Your task to perform on an android device: Do I have any events today? Image 0: 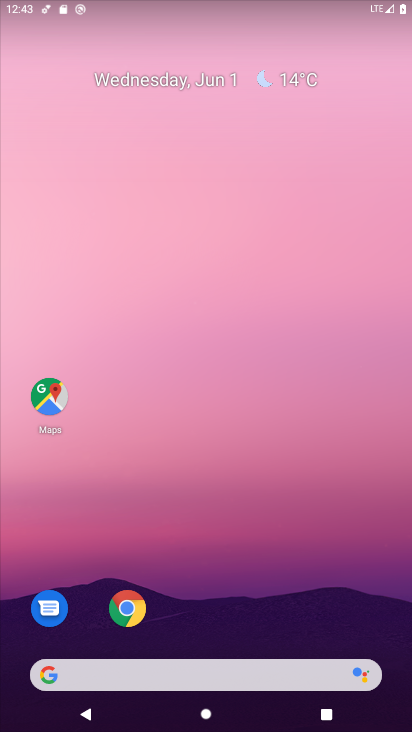
Step 0: drag from (205, 627) to (313, 37)
Your task to perform on an android device: Do I have any events today? Image 1: 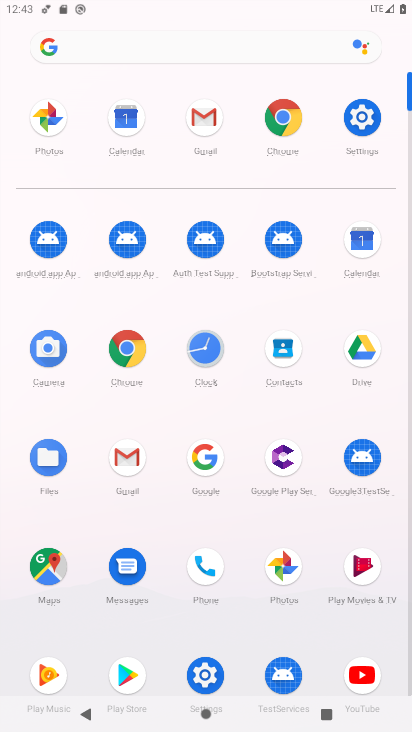
Step 1: click (361, 252)
Your task to perform on an android device: Do I have any events today? Image 2: 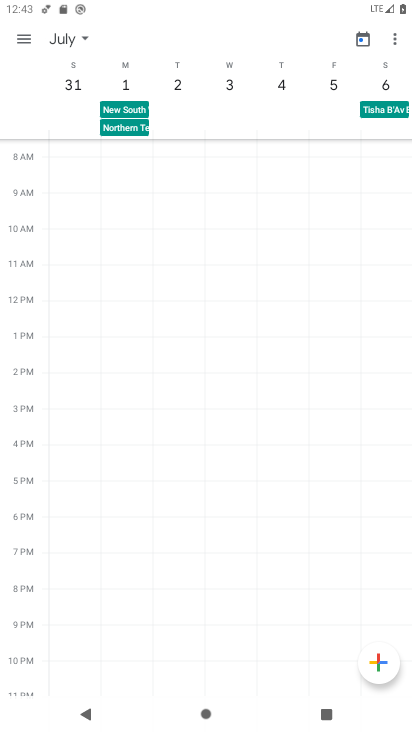
Step 2: click (72, 36)
Your task to perform on an android device: Do I have any events today? Image 3: 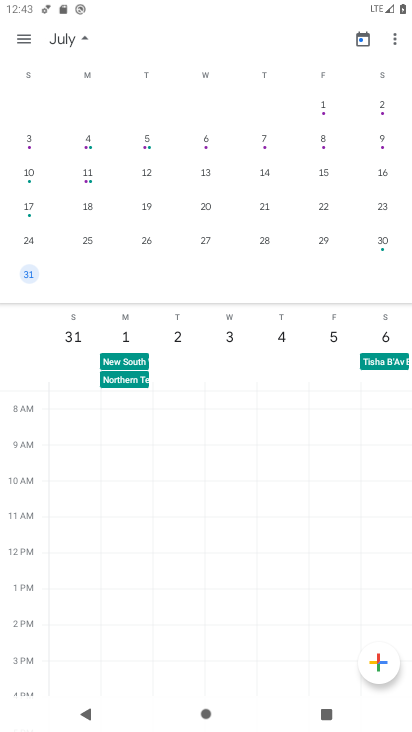
Step 3: drag from (55, 142) to (399, 135)
Your task to perform on an android device: Do I have any events today? Image 4: 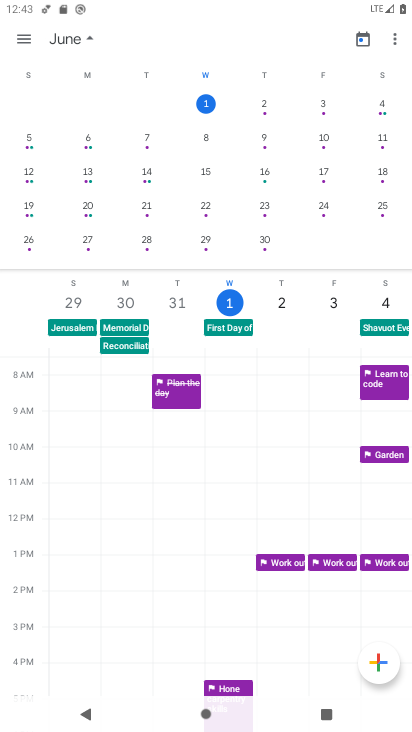
Step 4: click (210, 95)
Your task to perform on an android device: Do I have any events today? Image 5: 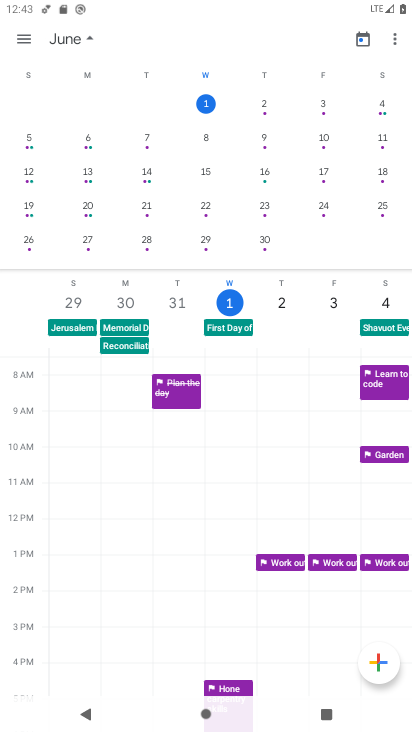
Step 5: click (23, 42)
Your task to perform on an android device: Do I have any events today? Image 6: 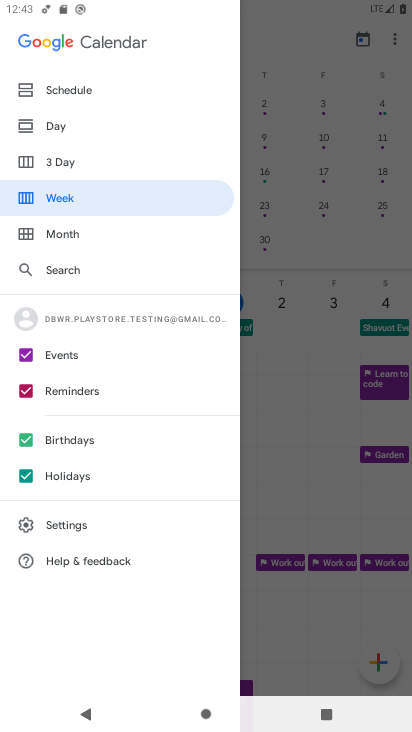
Step 6: click (67, 443)
Your task to perform on an android device: Do I have any events today? Image 7: 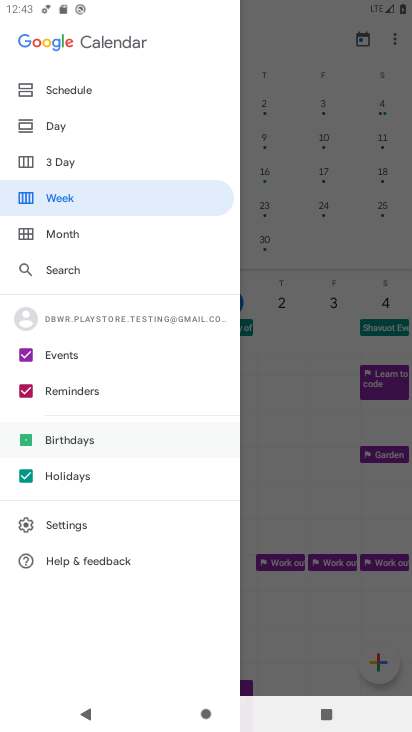
Step 7: click (62, 477)
Your task to perform on an android device: Do I have any events today? Image 8: 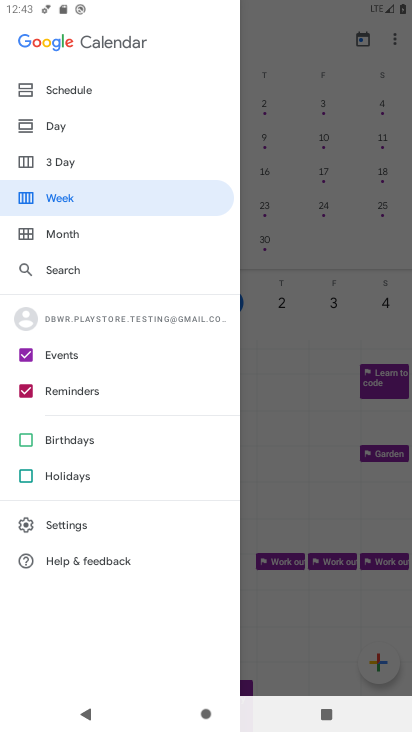
Step 8: click (66, 397)
Your task to perform on an android device: Do I have any events today? Image 9: 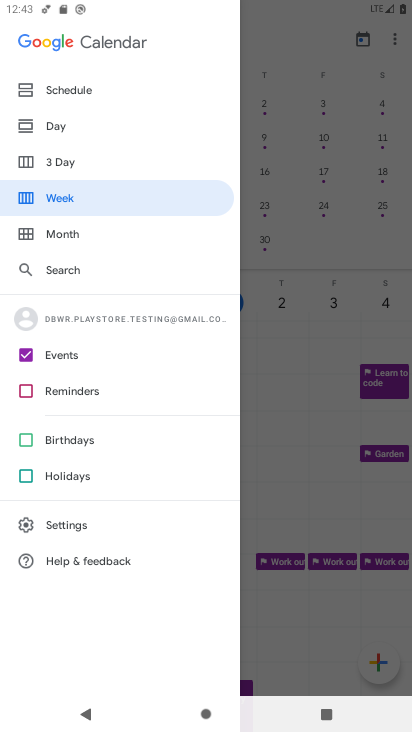
Step 9: click (67, 122)
Your task to perform on an android device: Do I have any events today? Image 10: 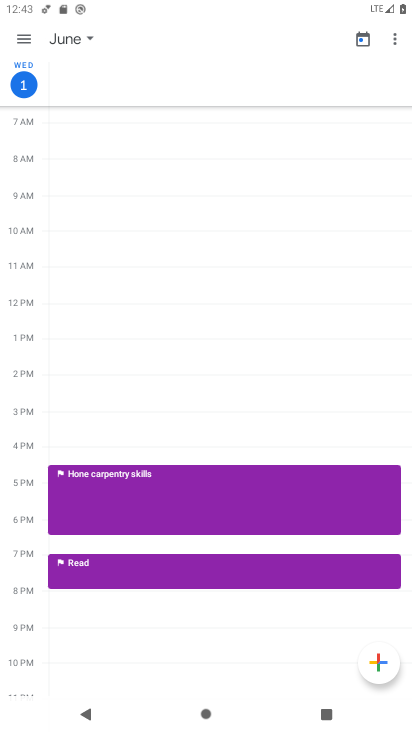
Step 10: task complete